Your task to perform on an android device: turn on priority inbox in the gmail app Image 0: 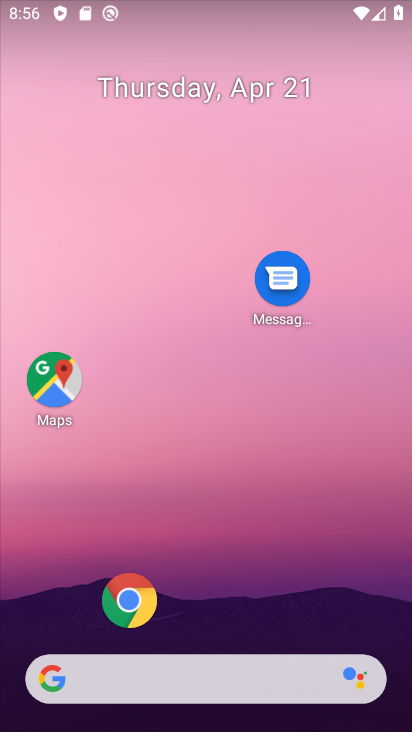
Step 0: drag from (25, 536) to (225, 178)
Your task to perform on an android device: turn on priority inbox in the gmail app Image 1: 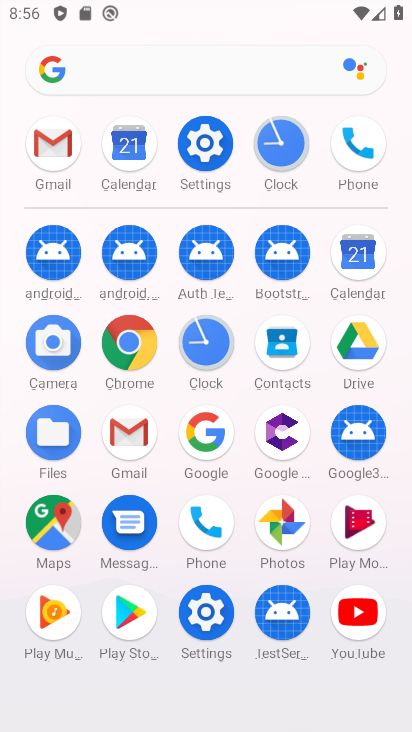
Step 1: click (57, 158)
Your task to perform on an android device: turn on priority inbox in the gmail app Image 2: 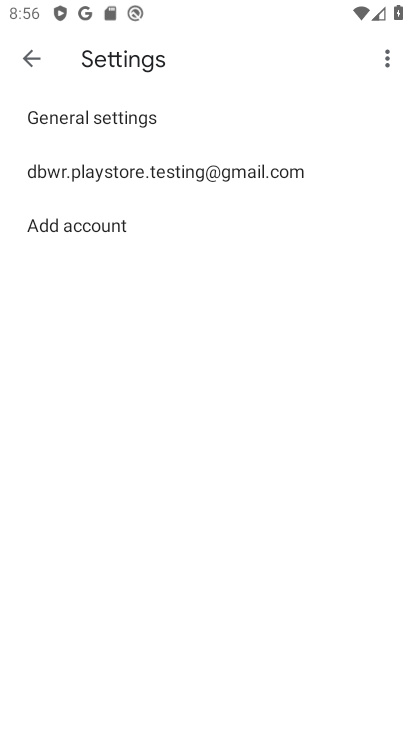
Step 2: click (198, 166)
Your task to perform on an android device: turn on priority inbox in the gmail app Image 3: 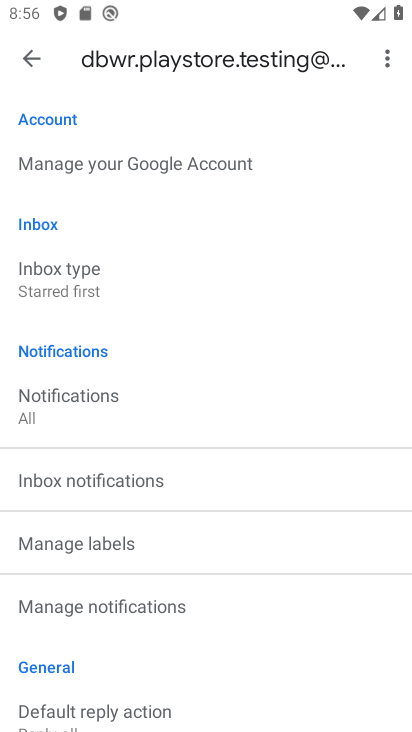
Step 3: click (194, 288)
Your task to perform on an android device: turn on priority inbox in the gmail app Image 4: 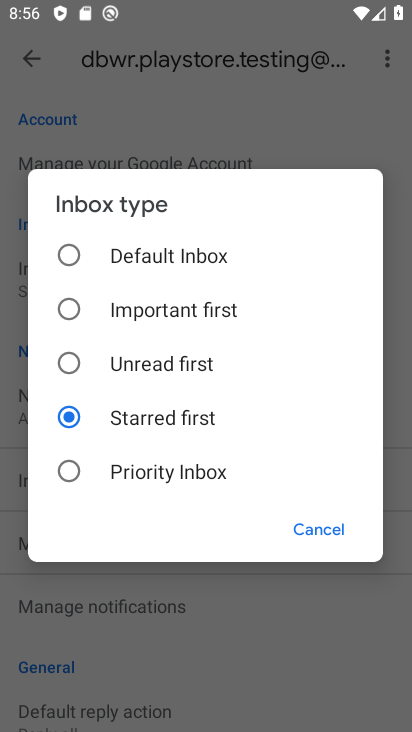
Step 4: click (163, 469)
Your task to perform on an android device: turn on priority inbox in the gmail app Image 5: 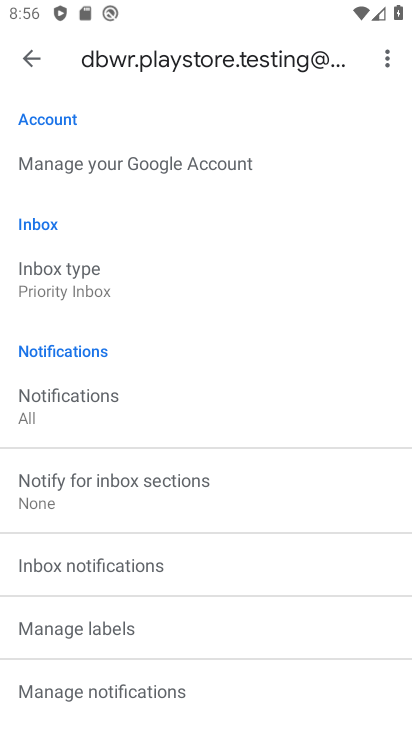
Step 5: task complete